Your task to perform on an android device: Show me the best rated 4K TV on Walmart. Image 0: 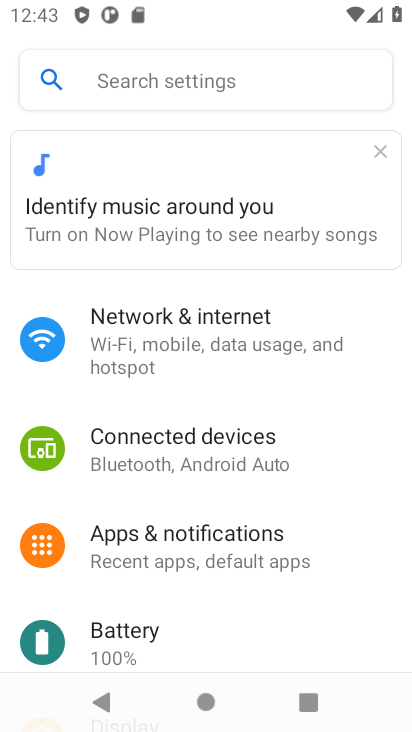
Step 0: press home button
Your task to perform on an android device: Show me the best rated 4K TV on Walmart. Image 1: 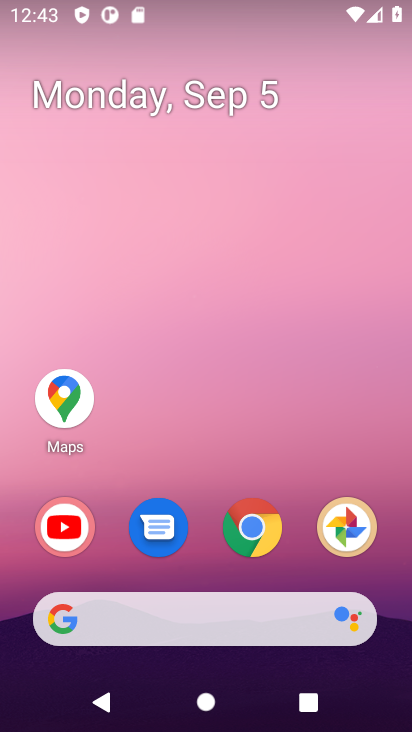
Step 1: click (256, 523)
Your task to perform on an android device: Show me the best rated 4K TV on Walmart. Image 2: 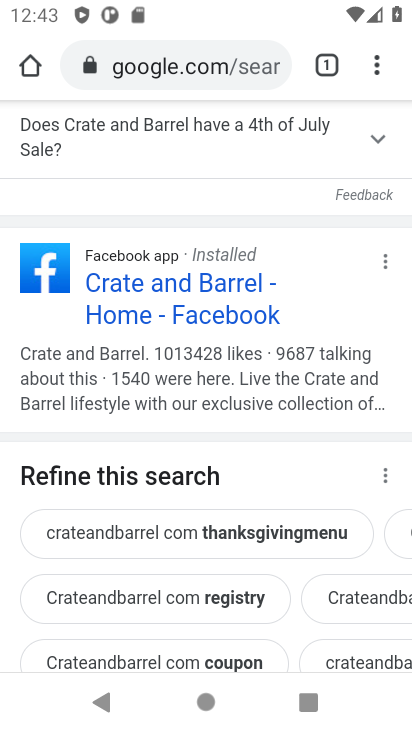
Step 2: drag from (243, 165) to (196, 582)
Your task to perform on an android device: Show me the best rated 4K TV on Walmart. Image 3: 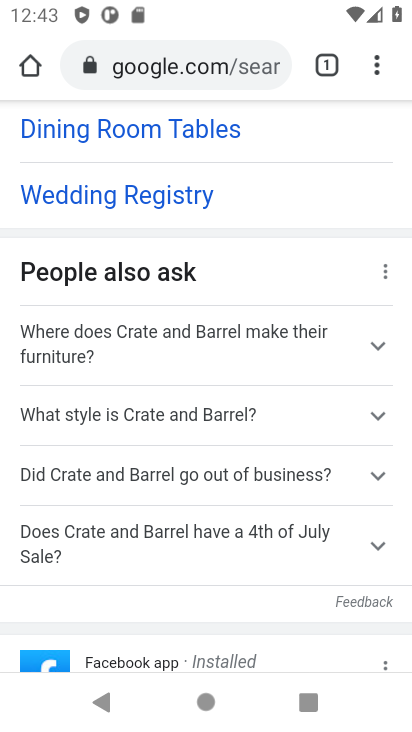
Step 3: click (162, 71)
Your task to perform on an android device: Show me the best rated 4K TV on Walmart. Image 4: 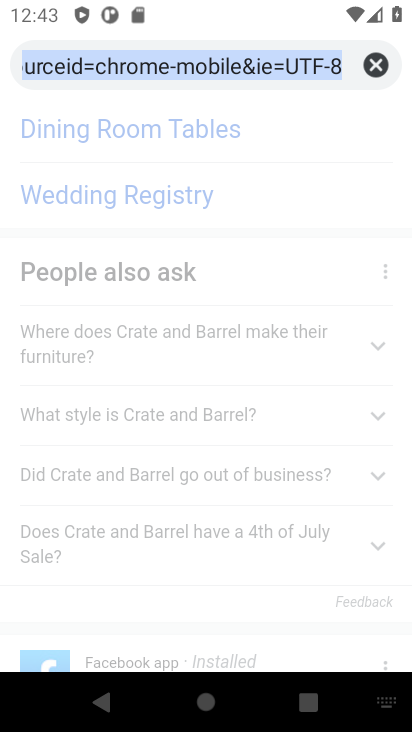
Step 4: type "Walmart"
Your task to perform on an android device: Show me the best rated 4K TV on Walmart. Image 5: 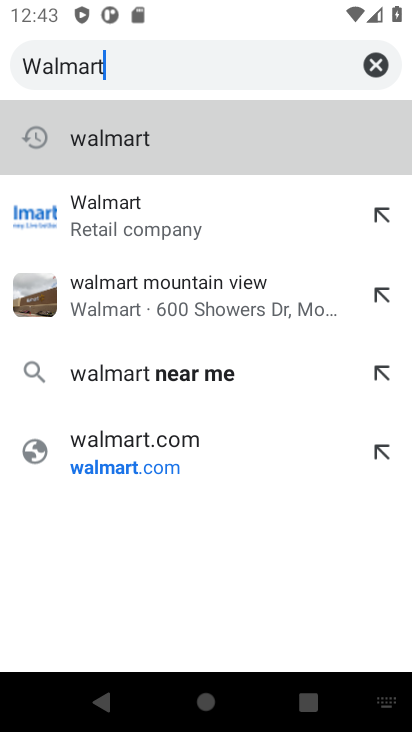
Step 5: click (119, 142)
Your task to perform on an android device: Show me the best rated 4K TV on Walmart. Image 6: 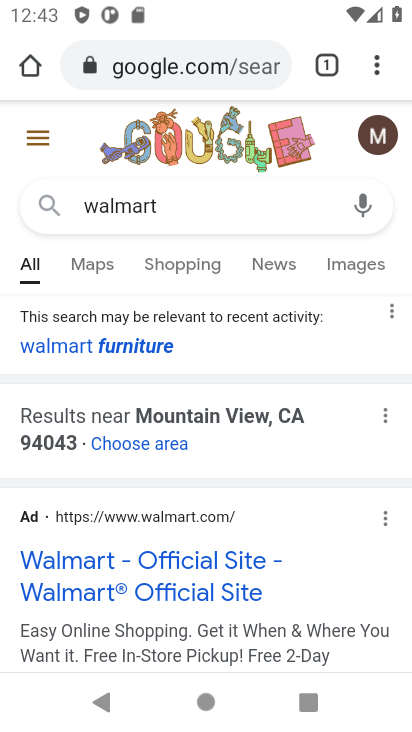
Step 6: click (189, 577)
Your task to perform on an android device: Show me the best rated 4K TV on Walmart. Image 7: 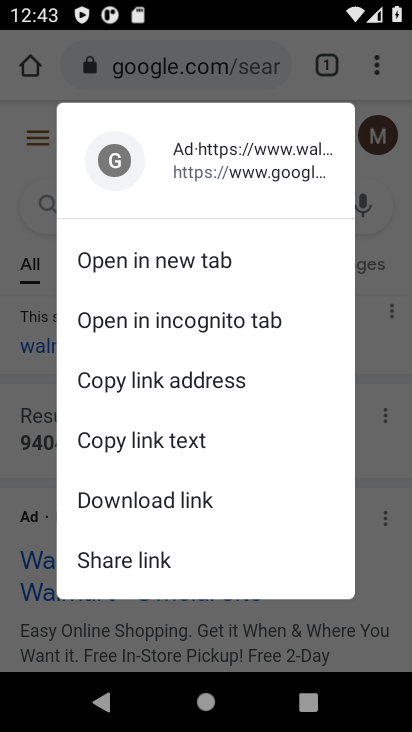
Step 7: click (33, 579)
Your task to perform on an android device: Show me the best rated 4K TV on Walmart. Image 8: 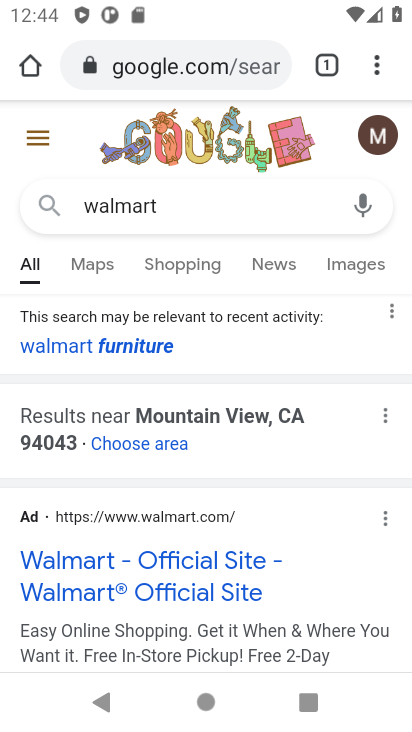
Step 8: click (82, 565)
Your task to perform on an android device: Show me the best rated 4K TV on Walmart. Image 9: 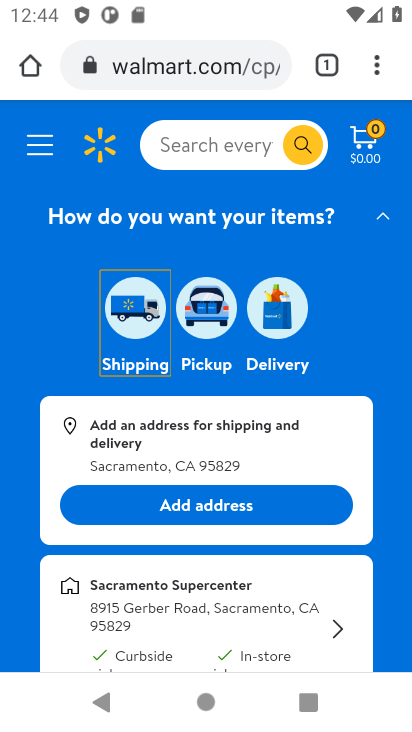
Step 9: click (221, 144)
Your task to perform on an android device: Show me the best rated 4K TV on Walmart. Image 10: 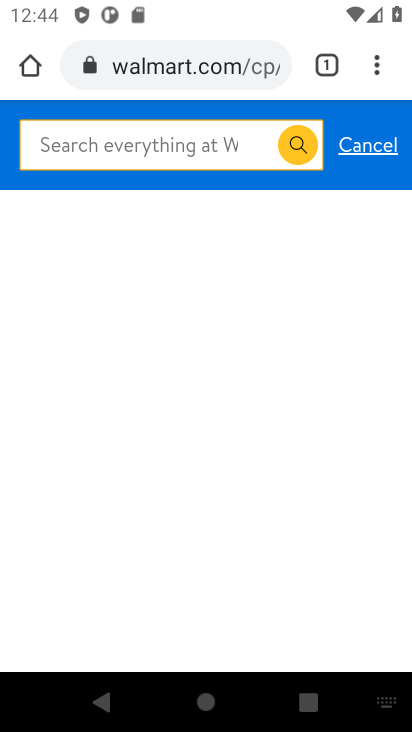
Step 10: type "the best rated 4K TV"
Your task to perform on an android device: Show me the best rated 4K TV on Walmart. Image 11: 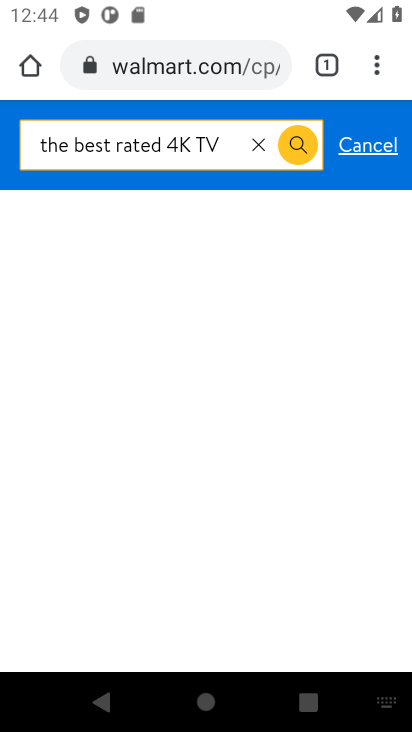
Step 11: click (295, 152)
Your task to perform on an android device: Show me the best rated 4K TV on Walmart. Image 12: 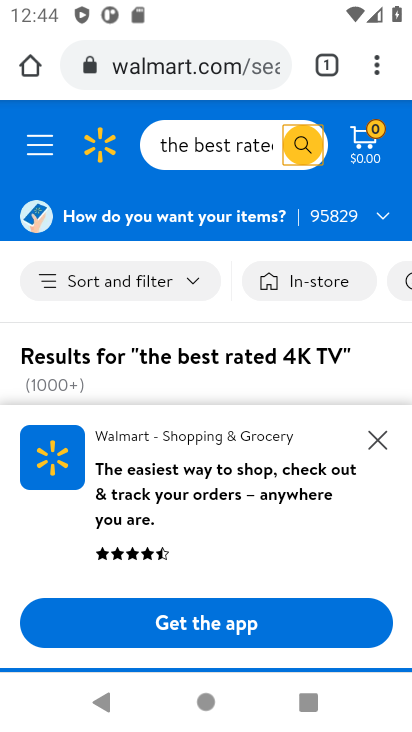
Step 12: click (304, 135)
Your task to perform on an android device: Show me the best rated 4K TV on Walmart. Image 13: 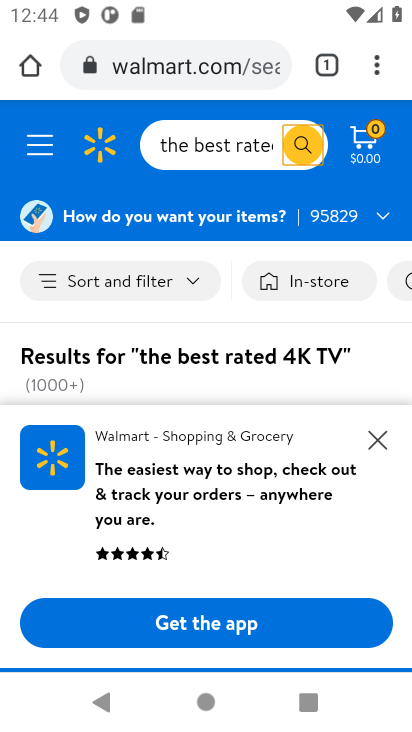
Step 13: click (384, 433)
Your task to perform on an android device: Show me the best rated 4K TV on Walmart. Image 14: 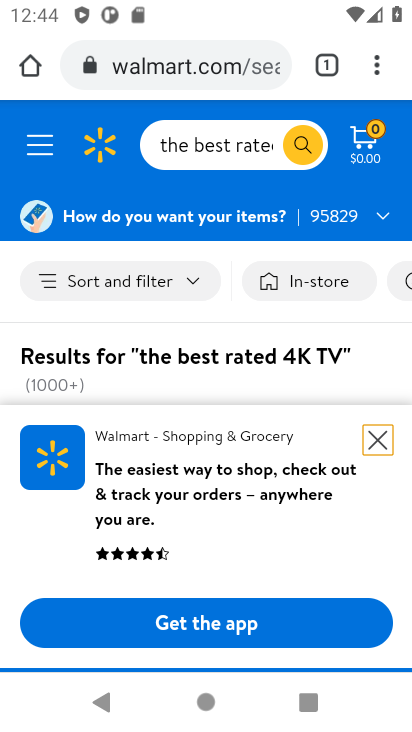
Step 14: click (384, 433)
Your task to perform on an android device: Show me the best rated 4K TV on Walmart. Image 15: 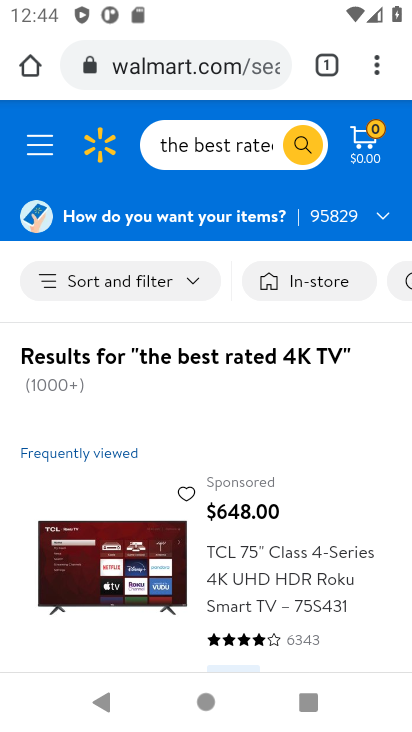
Step 15: task complete